Your task to perform on an android device: Go to notification settings Image 0: 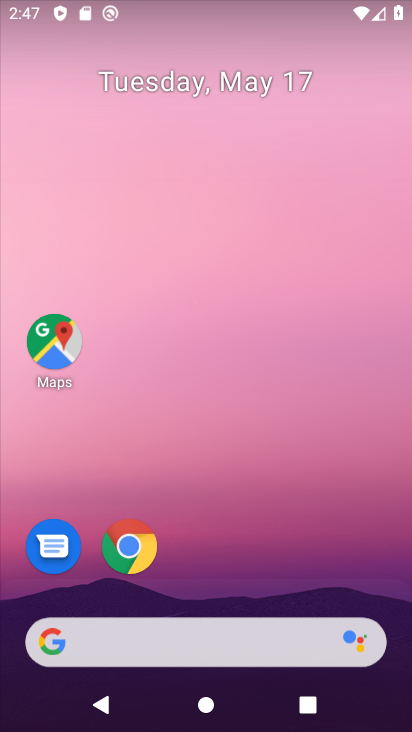
Step 0: drag from (211, 626) to (298, 179)
Your task to perform on an android device: Go to notification settings Image 1: 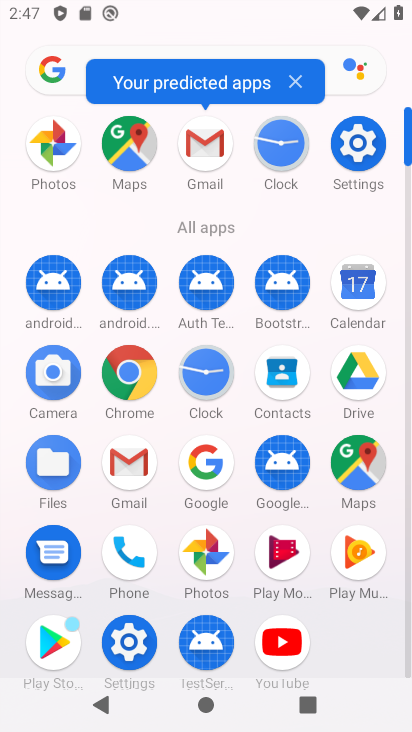
Step 1: click (118, 648)
Your task to perform on an android device: Go to notification settings Image 2: 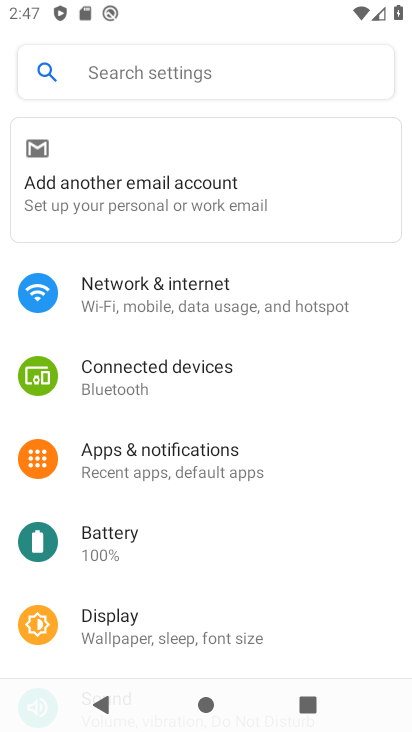
Step 2: click (199, 477)
Your task to perform on an android device: Go to notification settings Image 3: 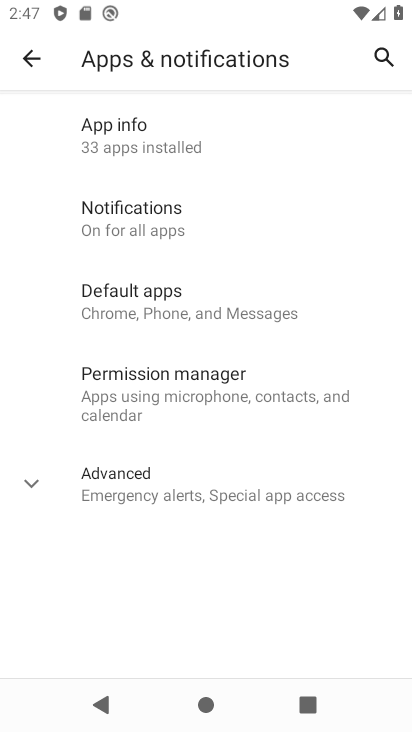
Step 3: click (212, 226)
Your task to perform on an android device: Go to notification settings Image 4: 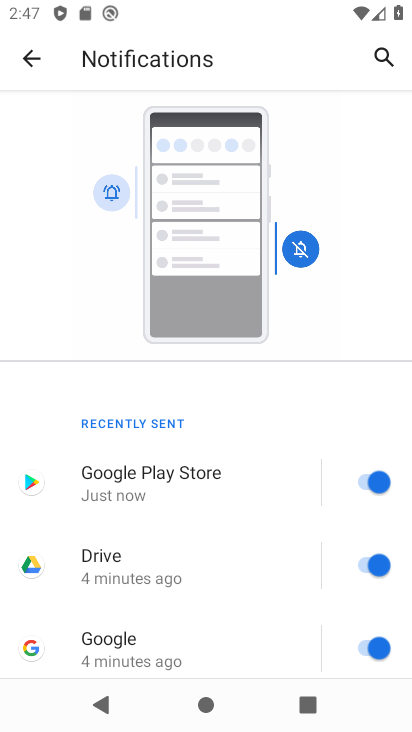
Step 4: task complete